Your task to perform on an android device: turn on translation in the chrome app Image 0: 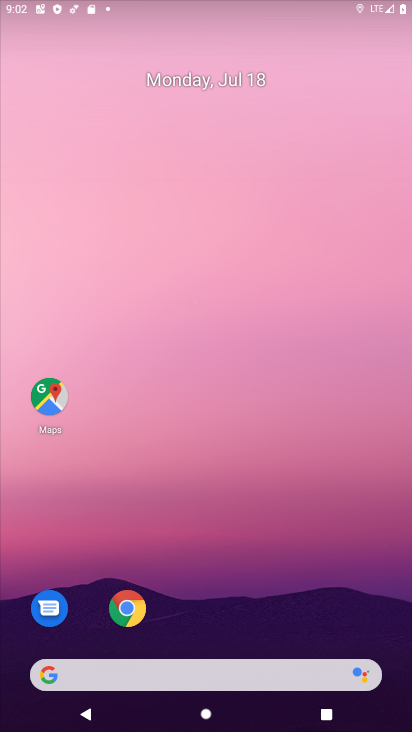
Step 0: click (117, 658)
Your task to perform on an android device: turn on translation in the chrome app Image 1: 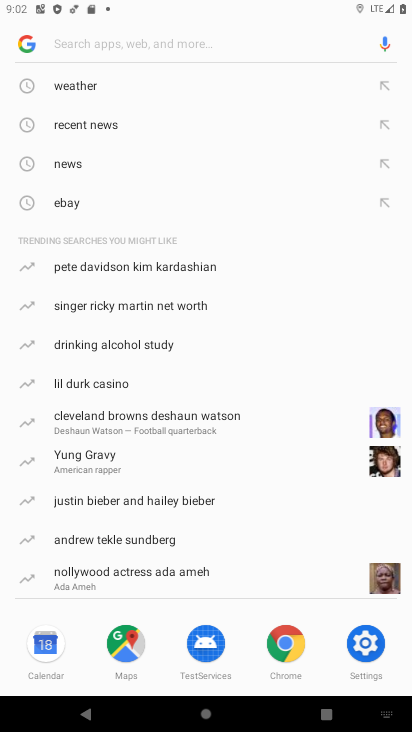
Step 1: press home button
Your task to perform on an android device: turn on translation in the chrome app Image 2: 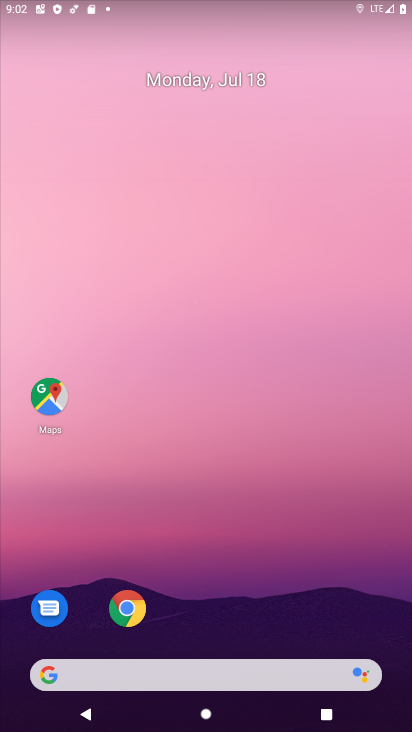
Step 2: click (118, 606)
Your task to perform on an android device: turn on translation in the chrome app Image 3: 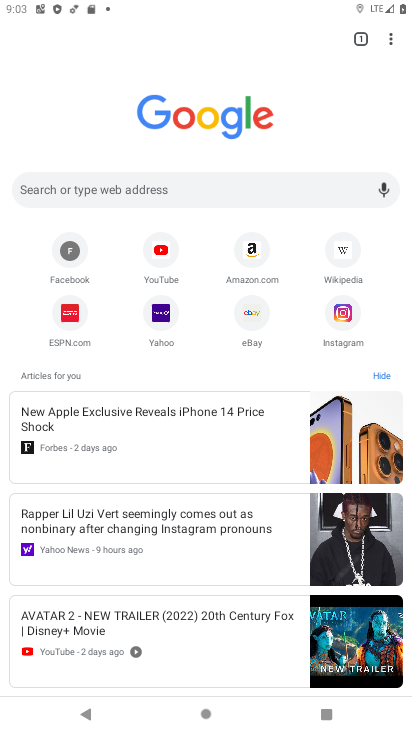
Step 3: click (392, 35)
Your task to perform on an android device: turn on translation in the chrome app Image 4: 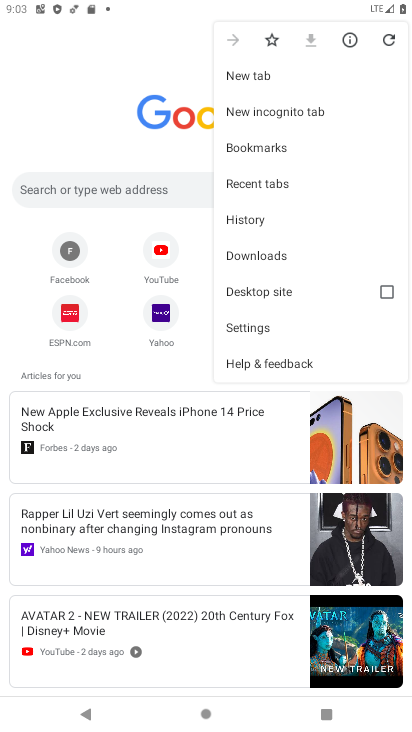
Step 4: click (260, 332)
Your task to perform on an android device: turn on translation in the chrome app Image 5: 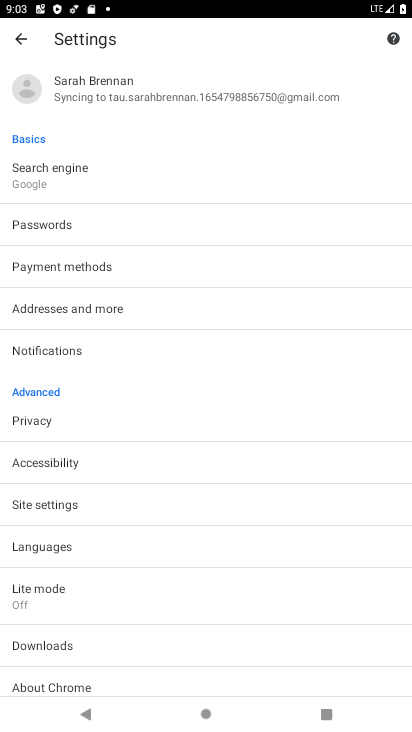
Step 5: click (109, 548)
Your task to perform on an android device: turn on translation in the chrome app Image 6: 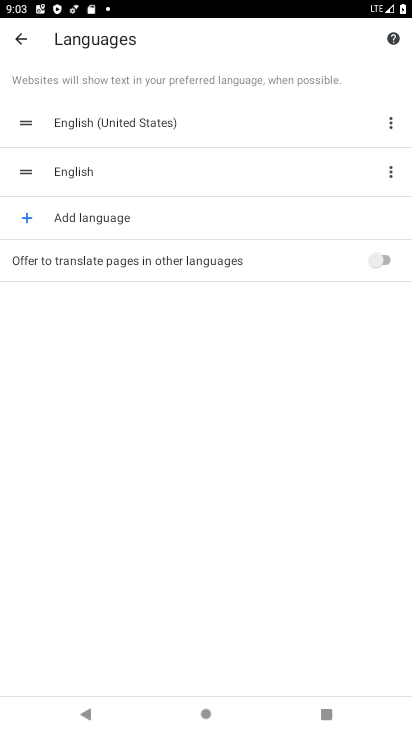
Step 6: click (376, 261)
Your task to perform on an android device: turn on translation in the chrome app Image 7: 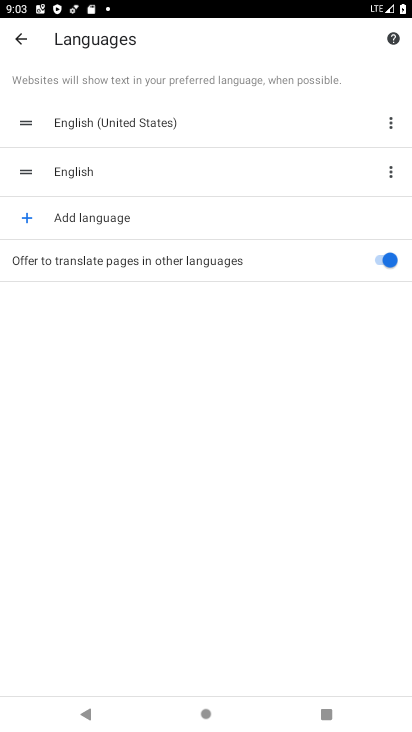
Step 7: task complete